Your task to perform on an android device: turn on javascript in the chrome app Image 0: 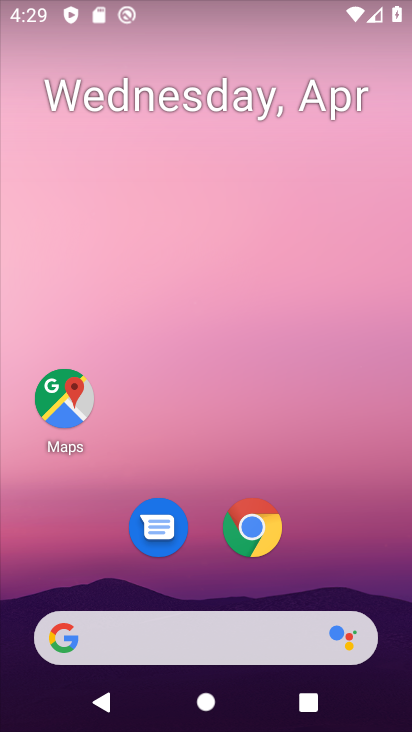
Step 0: click (248, 549)
Your task to perform on an android device: turn on javascript in the chrome app Image 1: 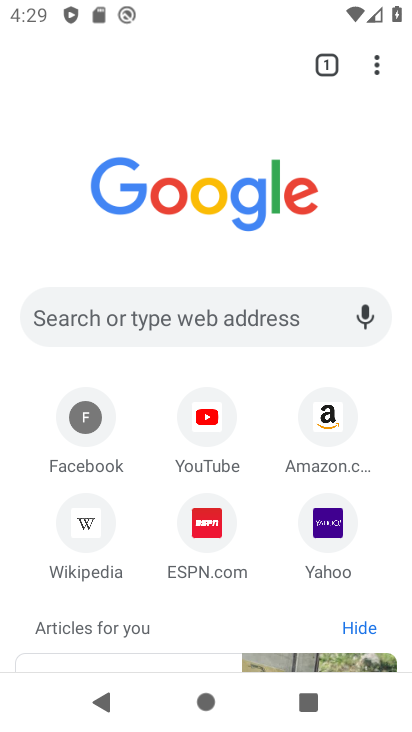
Step 1: click (376, 69)
Your task to perform on an android device: turn on javascript in the chrome app Image 2: 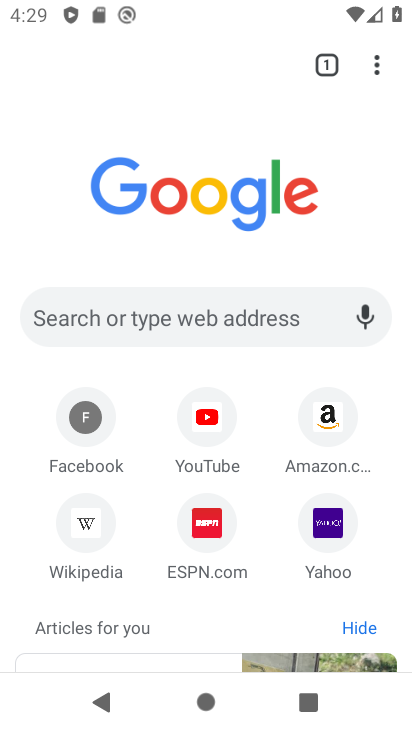
Step 2: click (376, 67)
Your task to perform on an android device: turn on javascript in the chrome app Image 3: 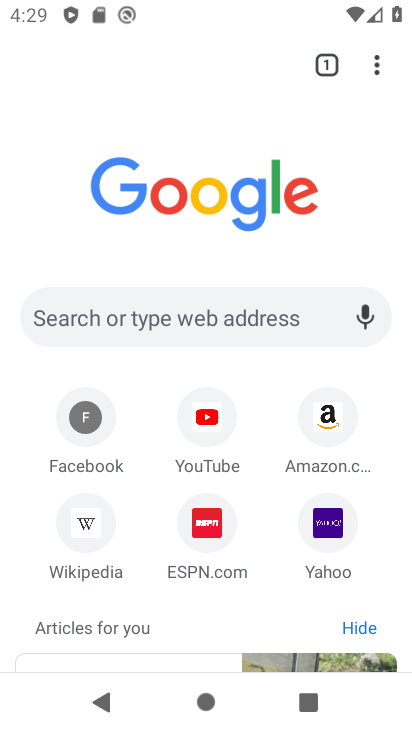
Step 3: click (373, 76)
Your task to perform on an android device: turn on javascript in the chrome app Image 4: 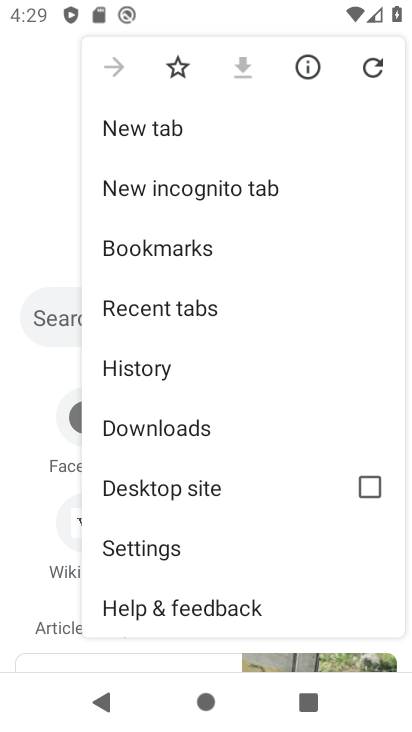
Step 4: drag from (238, 495) to (238, 186)
Your task to perform on an android device: turn on javascript in the chrome app Image 5: 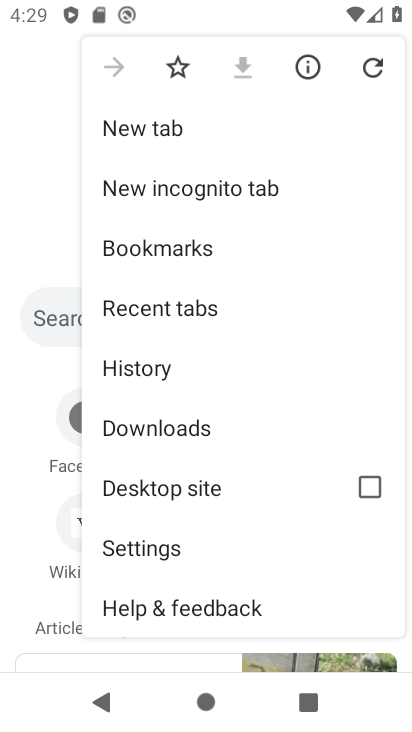
Step 5: click (146, 551)
Your task to perform on an android device: turn on javascript in the chrome app Image 6: 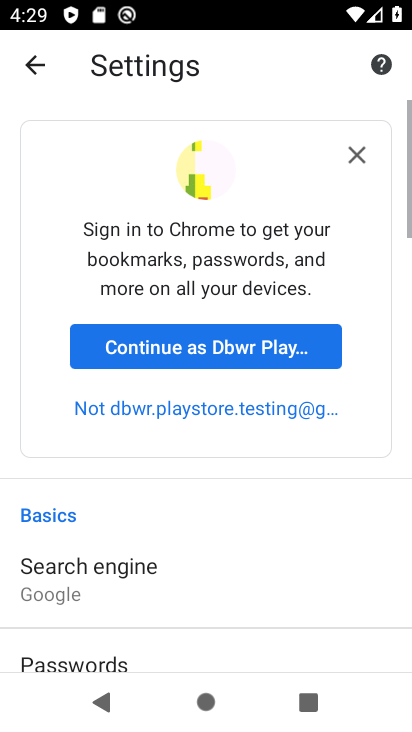
Step 6: drag from (177, 587) to (173, 150)
Your task to perform on an android device: turn on javascript in the chrome app Image 7: 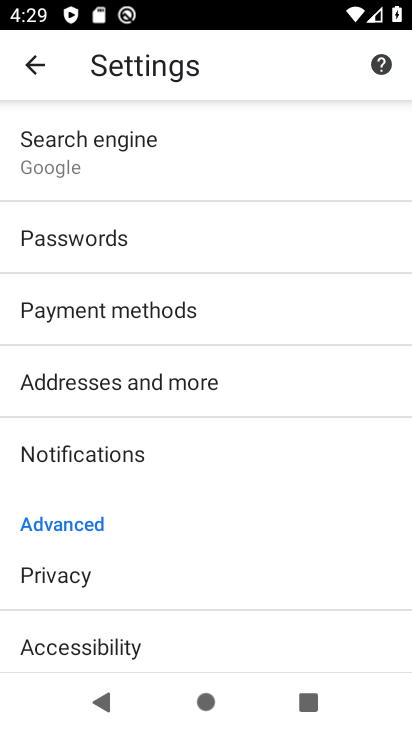
Step 7: drag from (175, 469) to (152, 80)
Your task to perform on an android device: turn on javascript in the chrome app Image 8: 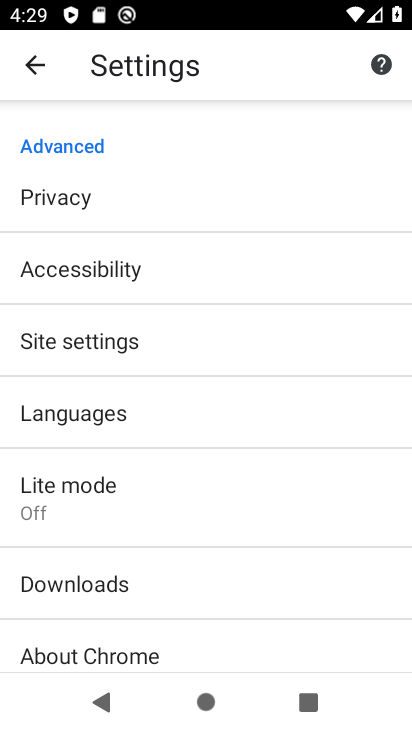
Step 8: click (100, 345)
Your task to perform on an android device: turn on javascript in the chrome app Image 9: 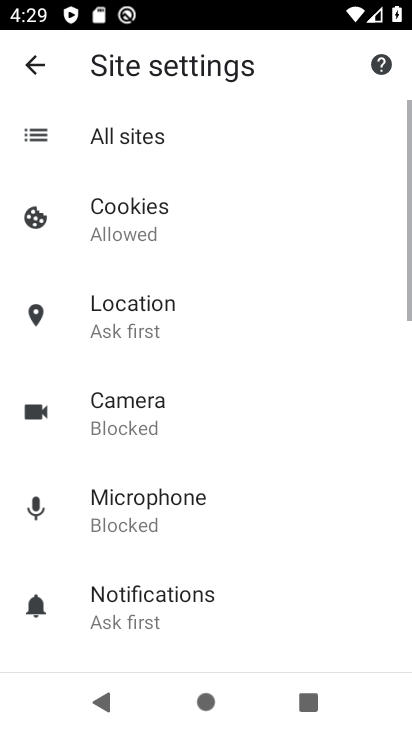
Step 9: drag from (253, 506) to (220, 73)
Your task to perform on an android device: turn on javascript in the chrome app Image 10: 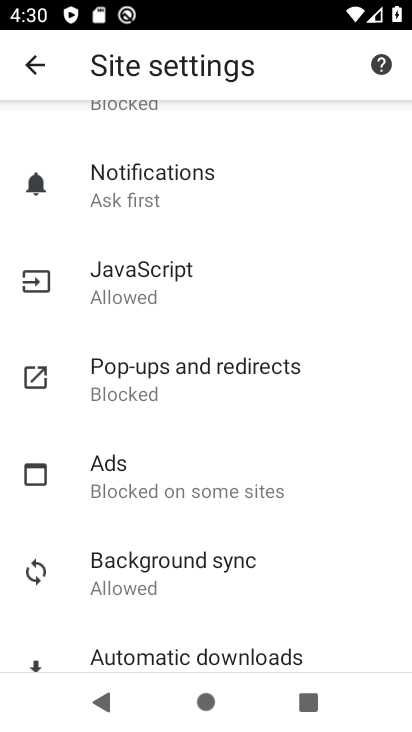
Step 10: click (164, 279)
Your task to perform on an android device: turn on javascript in the chrome app Image 11: 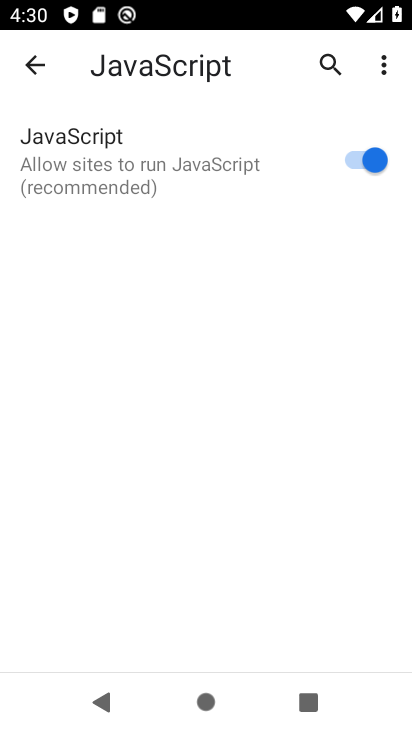
Step 11: task complete